Your task to perform on an android device: turn on the 24-hour format for clock Image 0: 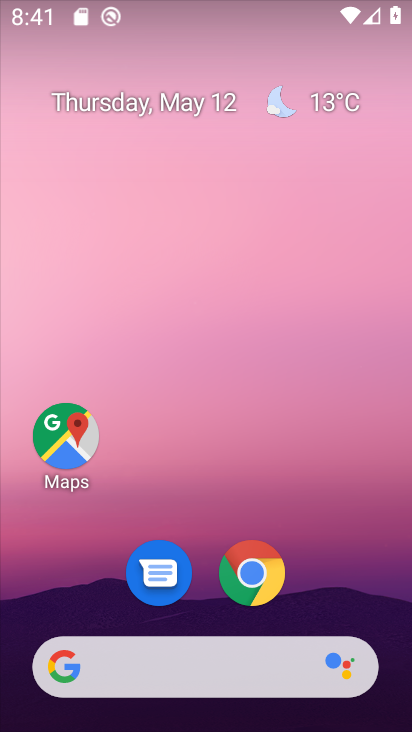
Step 0: drag from (51, 623) to (243, 137)
Your task to perform on an android device: turn on the 24-hour format for clock Image 1: 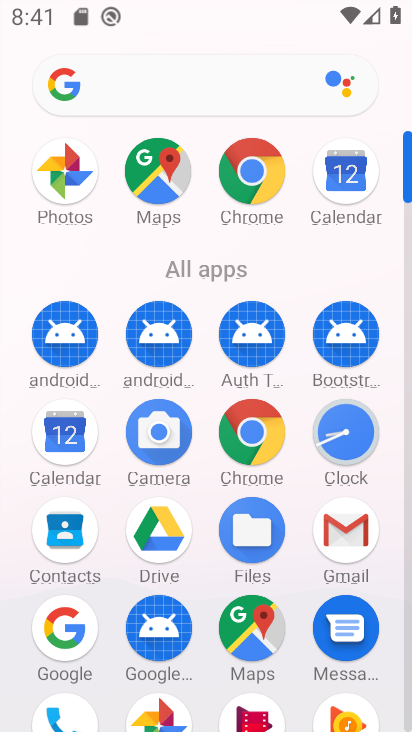
Step 1: click (350, 424)
Your task to perform on an android device: turn on the 24-hour format for clock Image 2: 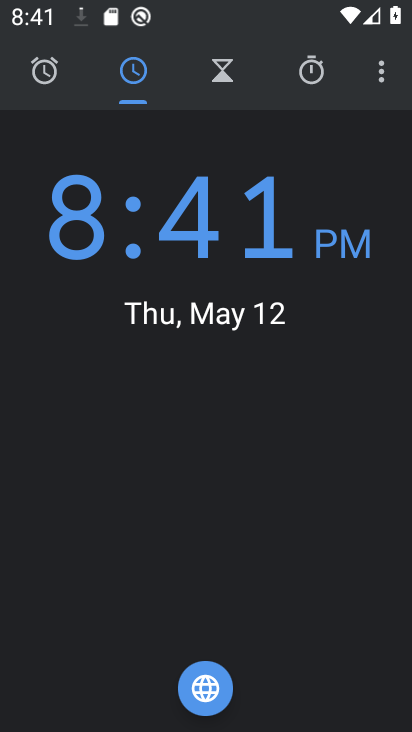
Step 2: click (393, 76)
Your task to perform on an android device: turn on the 24-hour format for clock Image 3: 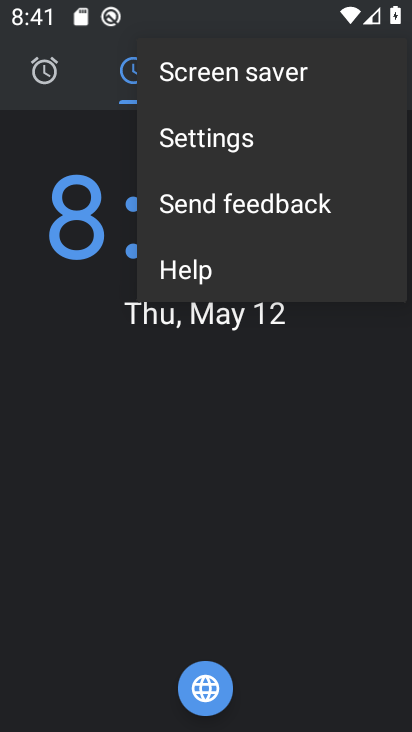
Step 3: click (287, 140)
Your task to perform on an android device: turn on the 24-hour format for clock Image 4: 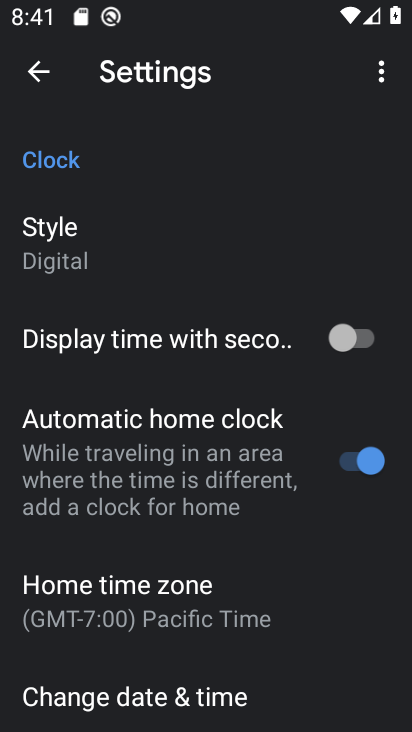
Step 4: drag from (198, 617) to (292, 181)
Your task to perform on an android device: turn on the 24-hour format for clock Image 5: 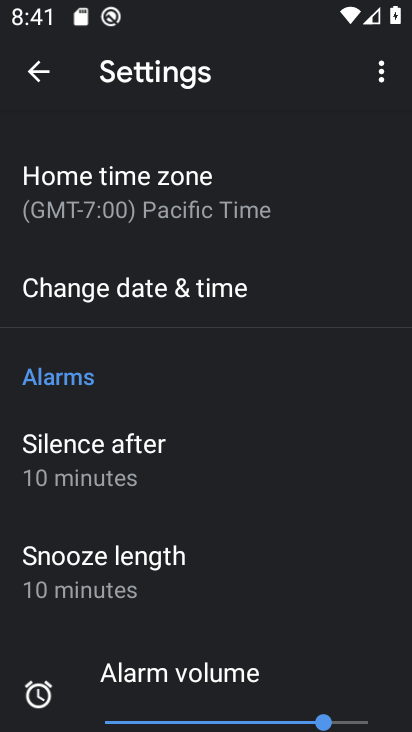
Step 5: click (232, 285)
Your task to perform on an android device: turn on the 24-hour format for clock Image 6: 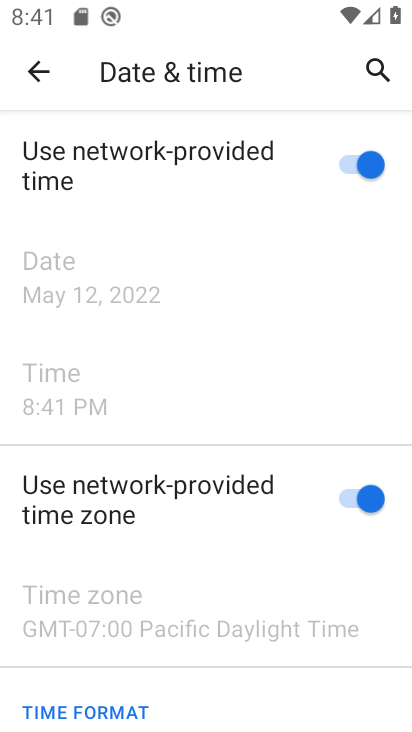
Step 6: drag from (131, 611) to (253, 171)
Your task to perform on an android device: turn on the 24-hour format for clock Image 7: 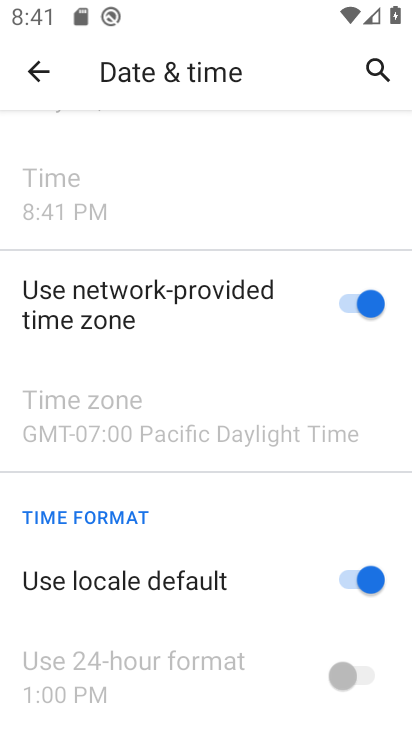
Step 7: click (353, 586)
Your task to perform on an android device: turn on the 24-hour format for clock Image 8: 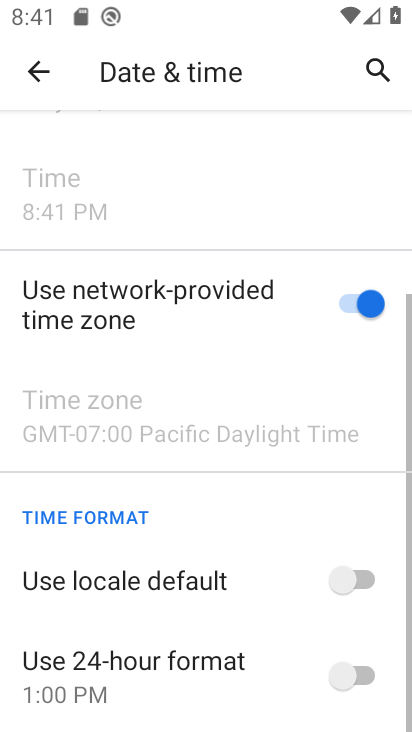
Step 8: click (374, 675)
Your task to perform on an android device: turn on the 24-hour format for clock Image 9: 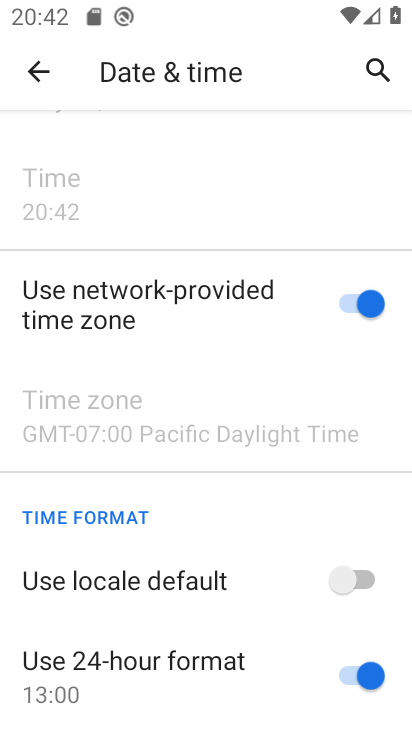
Step 9: task complete